Your task to perform on an android device: turn on sleep mode Image 0: 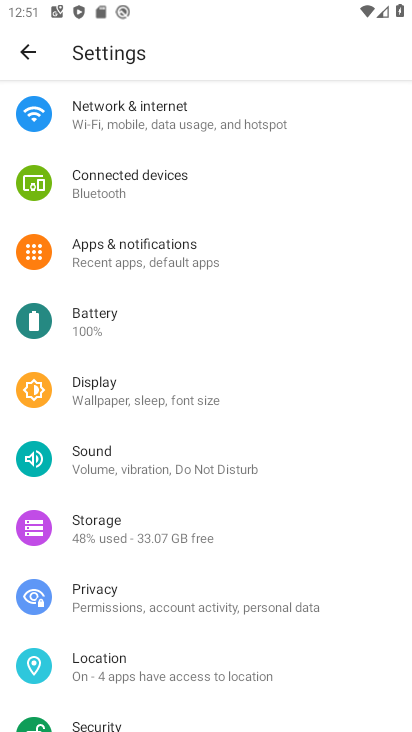
Step 0: press back button
Your task to perform on an android device: turn on sleep mode Image 1: 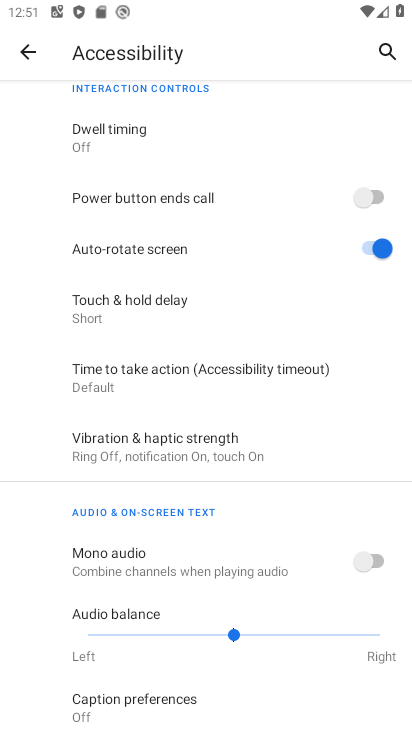
Step 1: press back button
Your task to perform on an android device: turn on sleep mode Image 2: 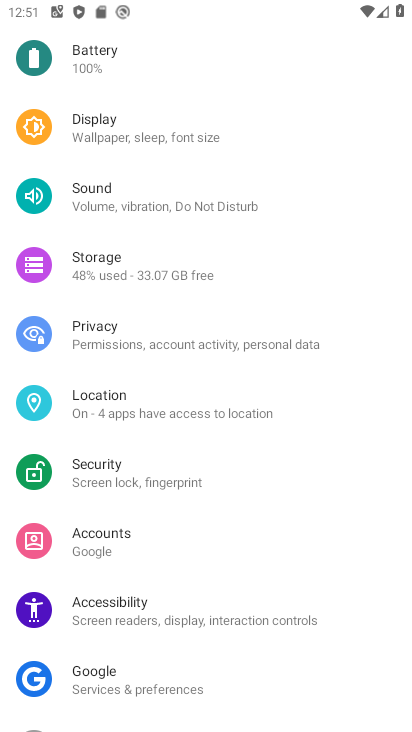
Step 2: press back button
Your task to perform on an android device: turn on sleep mode Image 3: 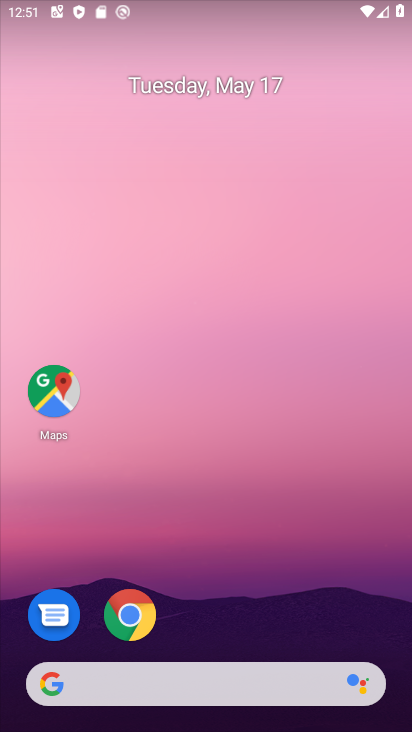
Step 3: drag from (248, 603) to (281, 250)
Your task to perform on an android device: turn on sleep mode Image 4: 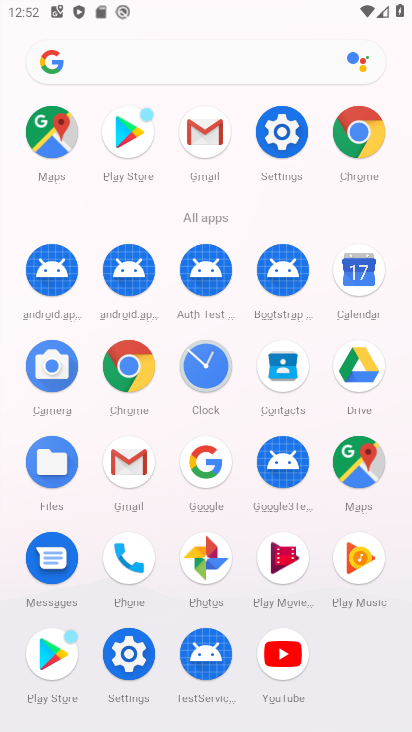
Step 4: click (285, 133)
Your task to perform on an android device: turn on sleep mode Image 5: 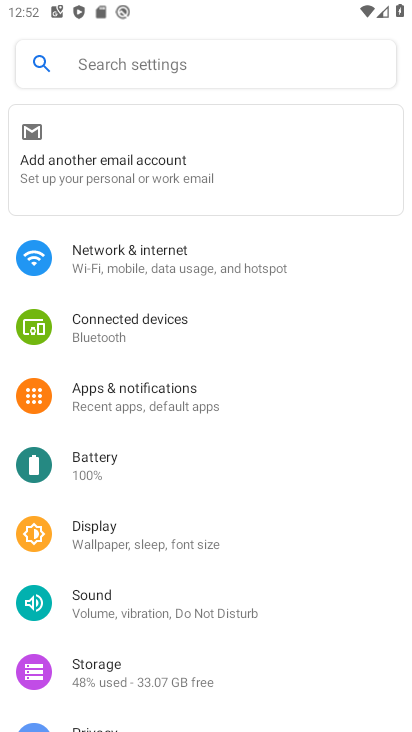
Step 5: drag from (175, 452) to (239, 376)
Your task to perform on an android device: turn on sleep mode Image 6: 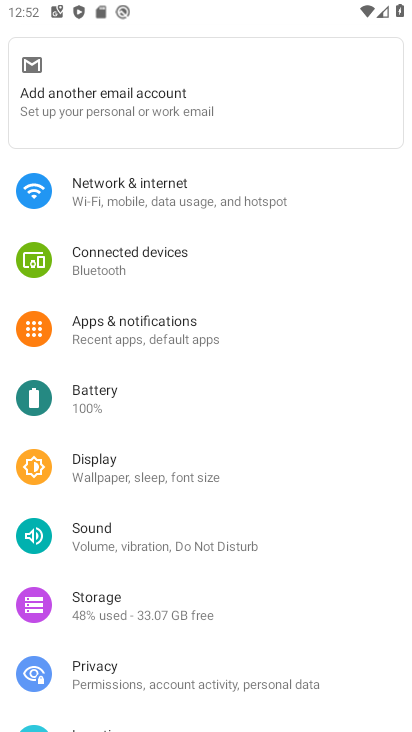
Step 6: drag from (199, 483) to (284, 379)
Your task to perform on an android device: turn on sleep mode Image 7: 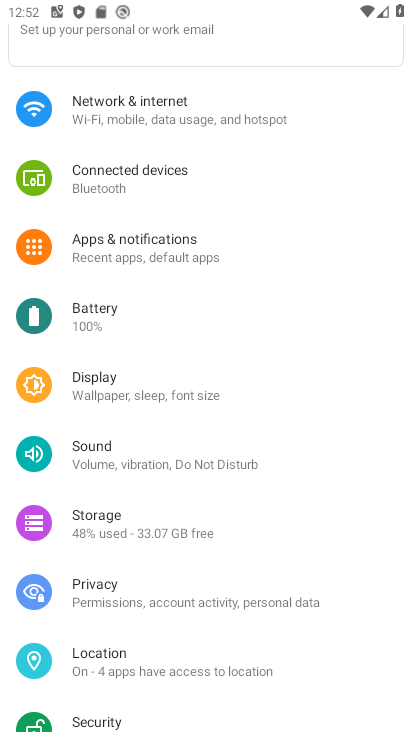
Step 7: click (193, 393)
Your task to perform on an android device: turn on sleep mode Image 8: 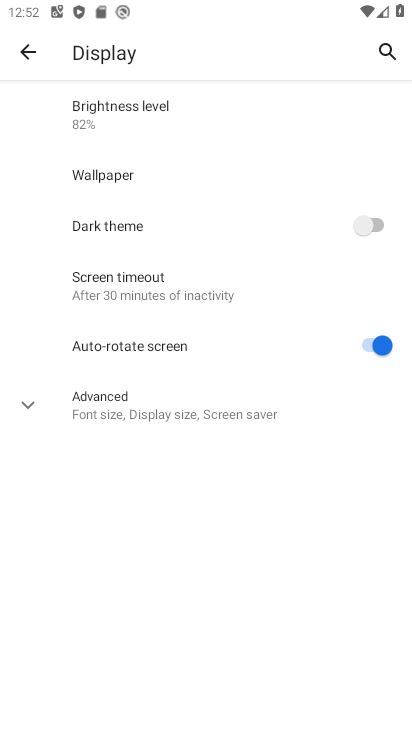
Step 8: click (150, 402)
Your task to perform on an android device: turn on sleep mode Image 9: 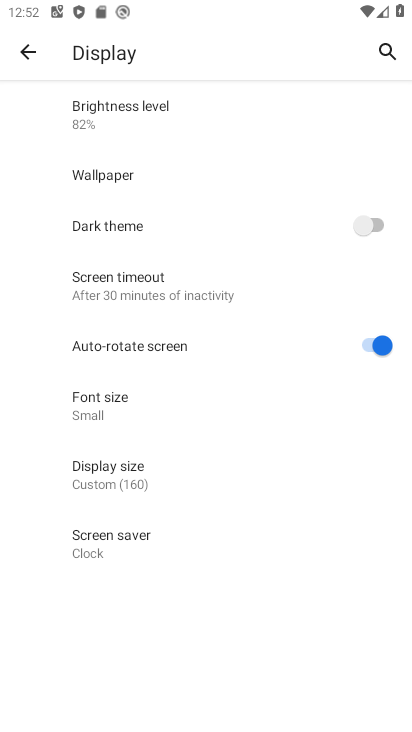
Step 9: click (167, 286)
Your task to perform on an android device: turn on sleep mode Image 10: 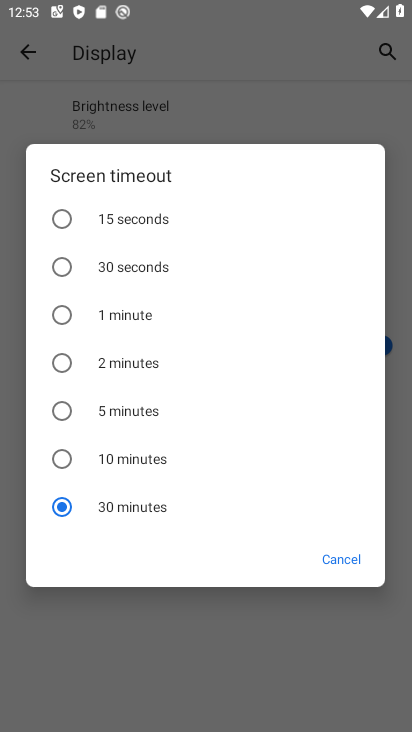
Step 10: click (358, 563)
Your task to perform on an android device: turn on sleep mode Image 11: 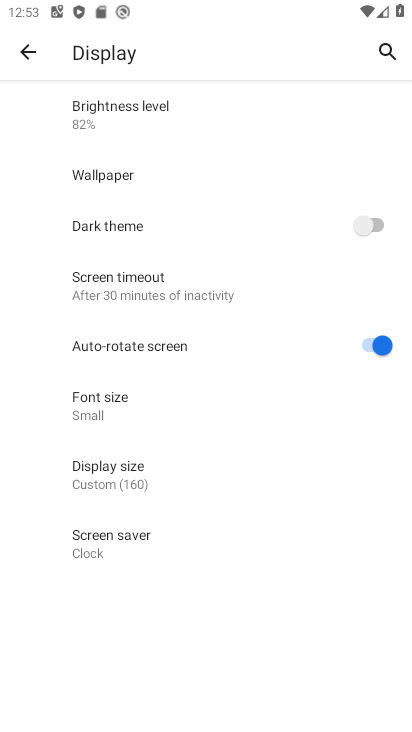
Step 11: task complete